Your task to perform on an android device: Go to network settings Image 0: 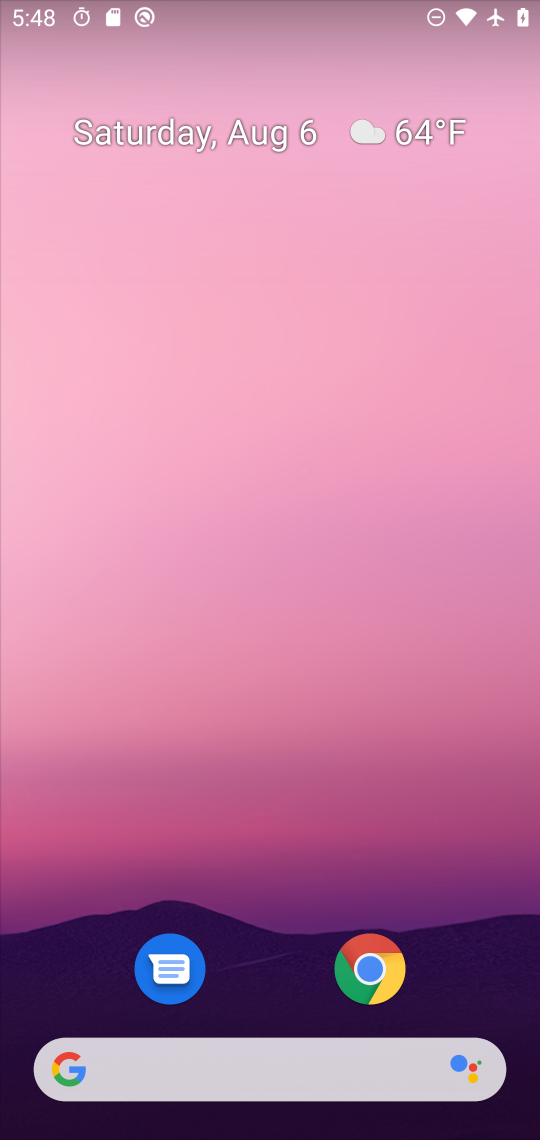
Step 0: press home button
Your task to perform on an android device: Go to network settings Image 1: 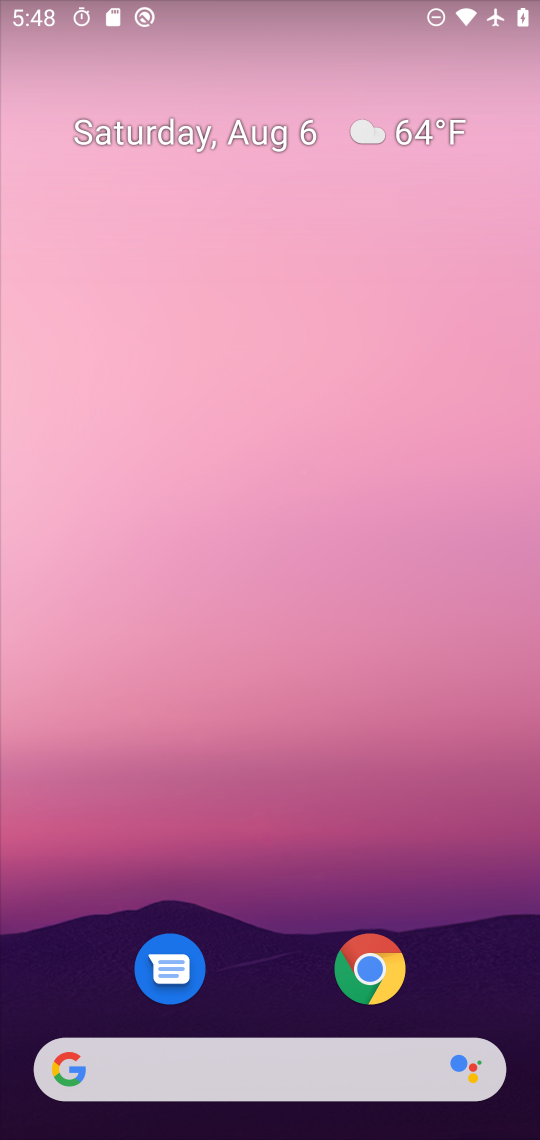
Step 1: drag from (253, 1019) to (132, 0)
Your task to perform on an android device: Go to network settings Image 2: 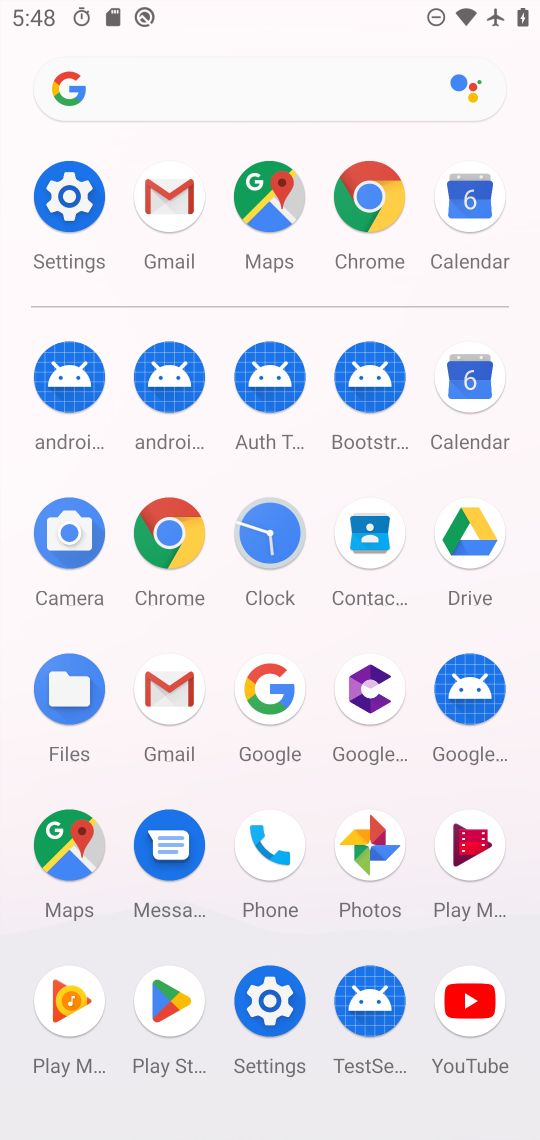
Step 2: click (74, 200)
Your task to perform on an android device: Go to network settings Image 3: 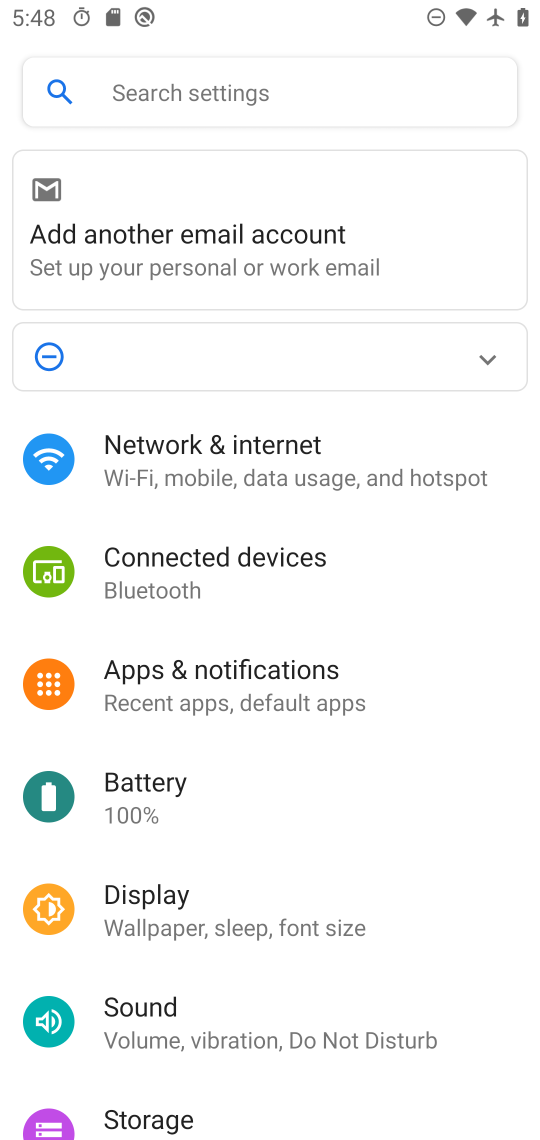
Step 3: click (242, 455)
Your task to perform on an android device: Go to network settings Image 4: 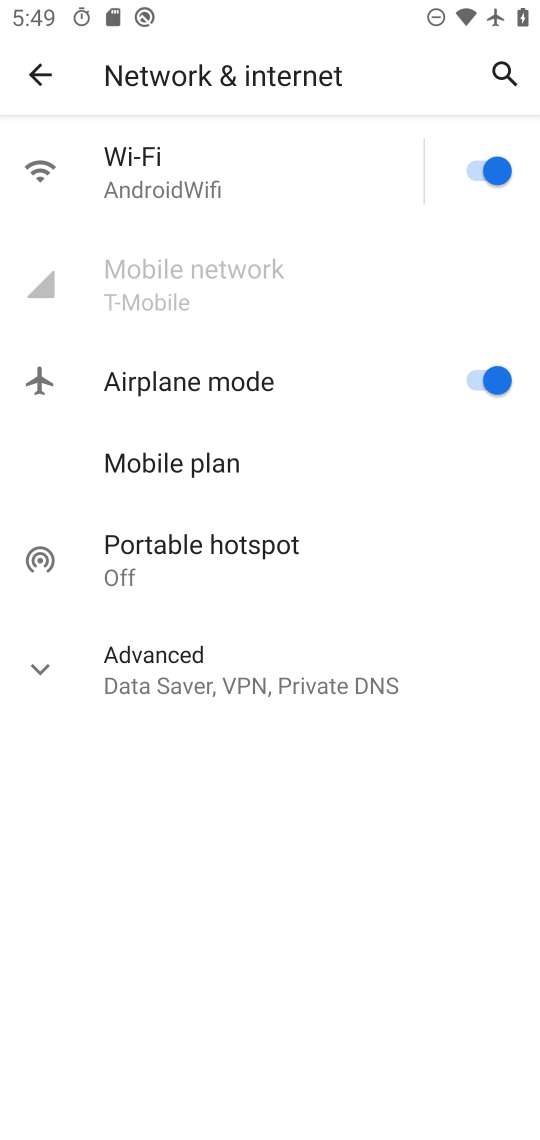
Step 4: task complete